Your task to perform on an android device: Open Google Chrome Image 0: 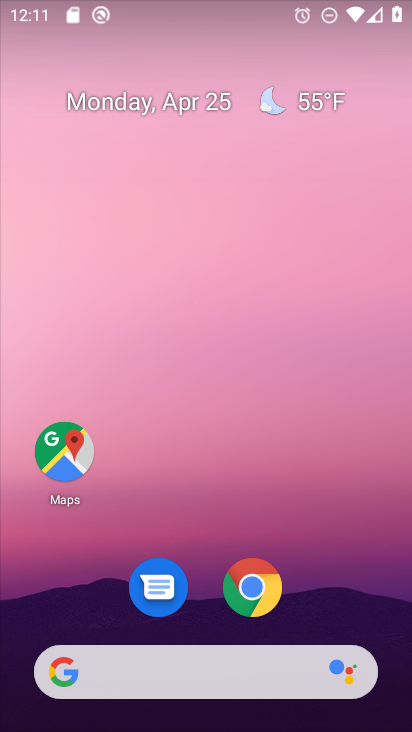
Step 0: drag from (308, 468) to (314, 133)
Your task to perform on an android device: Open Google Chrome Image 1: 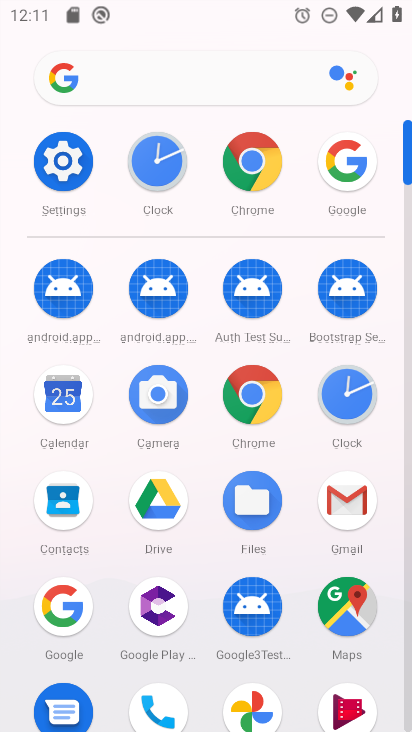
Step 1: click (263, 412)
Your task to perform on an android device: Open Google Chrome Image 2: 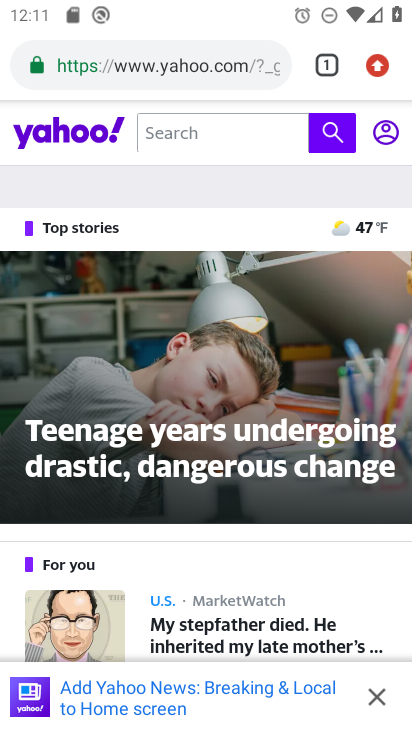
Step 2: task complete